Your task to perform on an android device: check the backup settings in the google photos Image 0: 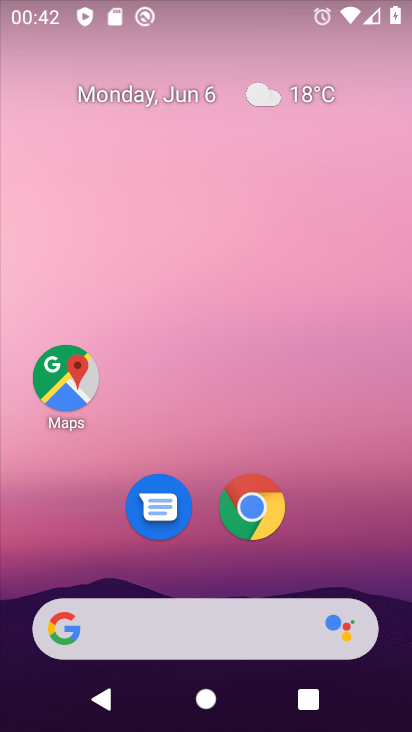
Step 0: drag from (221, 594) to (294, 169)
Your task to perform on an android device: check the backup settings in the google photos Image 1: 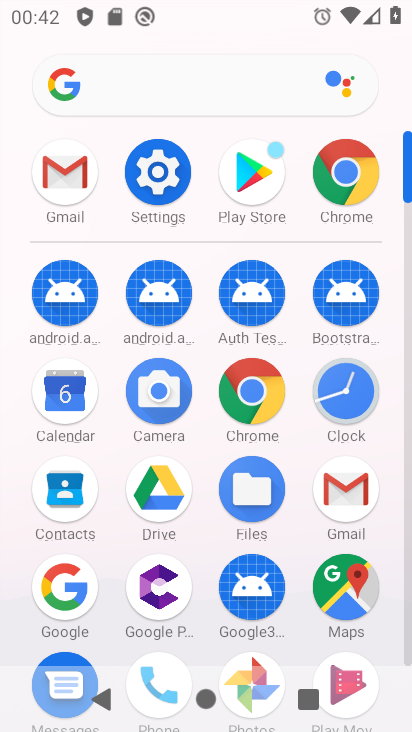
Step 1: drag from (211, 568) to (217, 305)
Your task to perform on an android device: check the backup settings in the google photos Image 2: 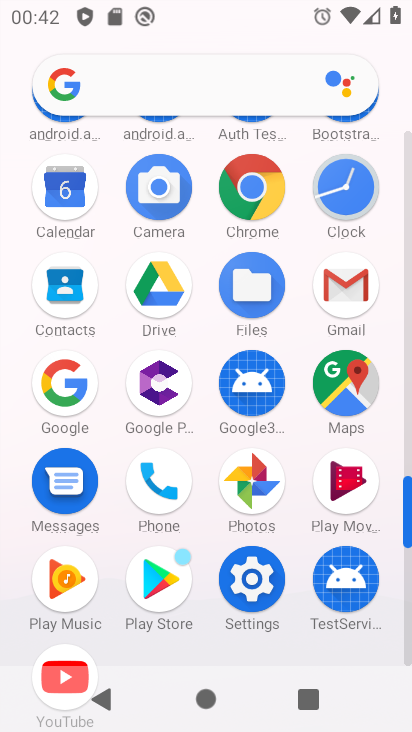
Step 2: click (252, 482)
Your task to perform on an android device: check the backup settings in the google photos Image 3: 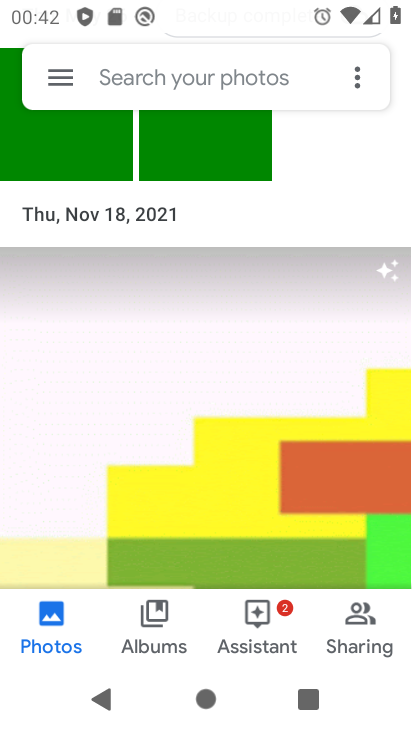
Step 3: click (53, 69)
Your task to perform on an android device: check the backup settings in the google photos Image 4: 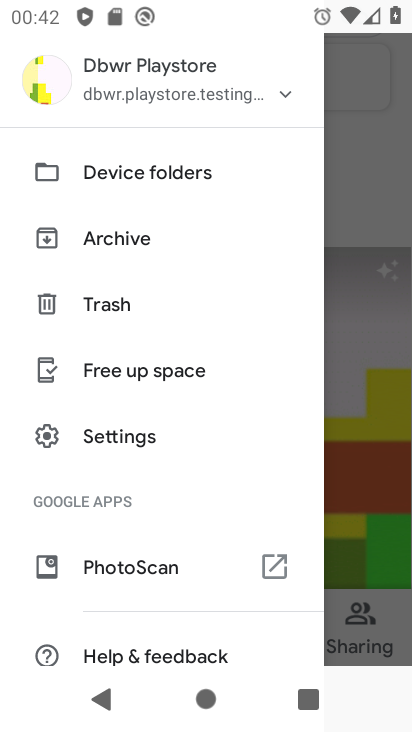
Step 4: drag from (136, 529) to (150, 432)
Your task to perform on an android device: check the backup settings in the google photos Image 5: 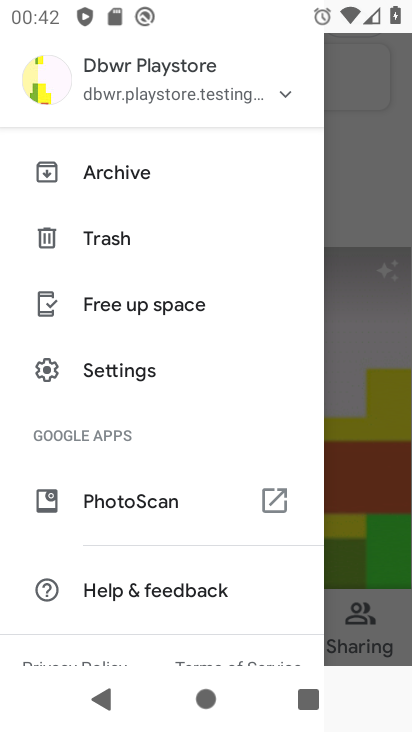
Step 5: click (121, 367)
Your task to perform on an android device: check the backup settings in the google photos Image 6: 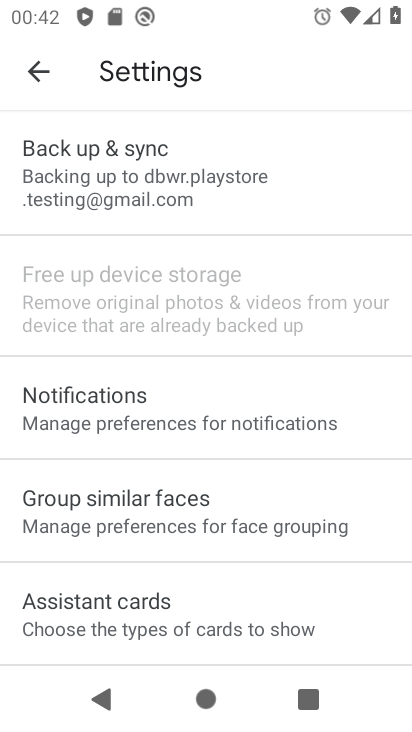
Step 6: click (143, 160)
Your task to perform on an android device: check the backup settings in the google photos Image 7: 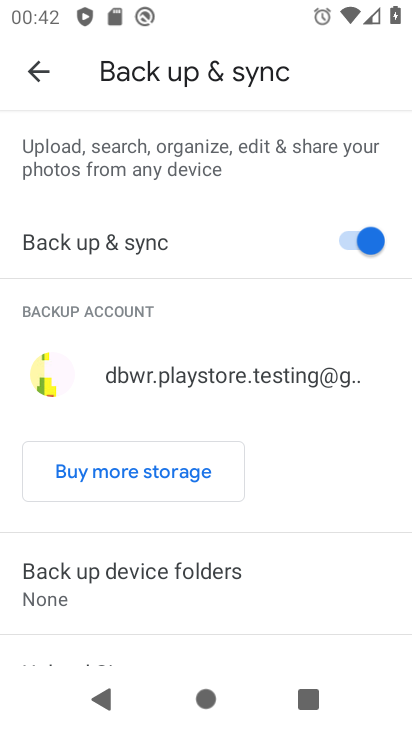
Step 7: task complete